Your task to perform on an android device: Check the news Image 0: 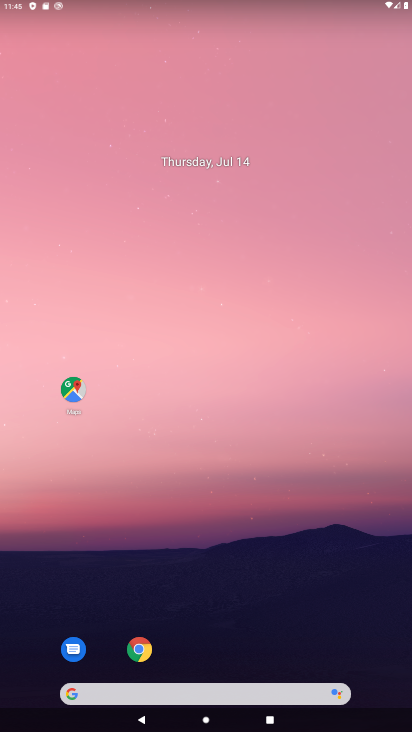
Step 0: drag from (221, 637) to (262, 188)
Your task to perform on an android device: Check the news Image 1: 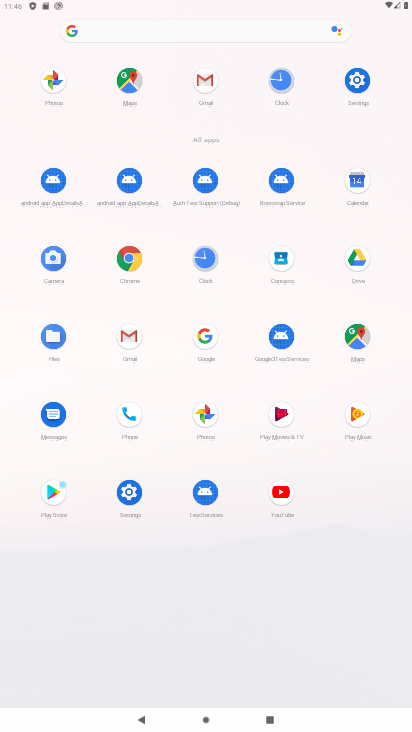
Step 1: click (129, 254)
Your task to perform on an android device: Check the news Image 2: 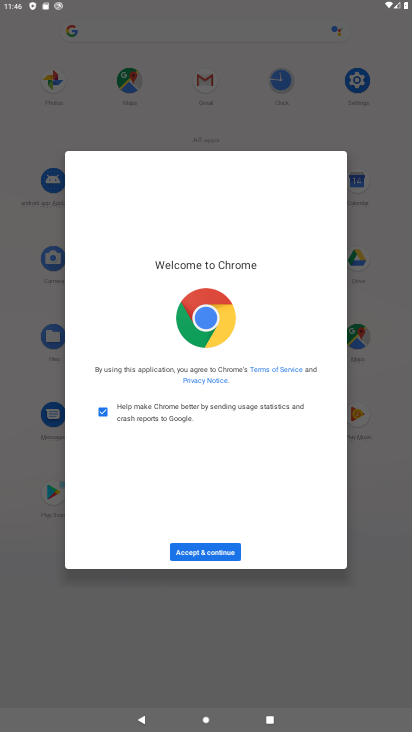
Step 2: click (214, 560)
Your task to perform on an android device: Check the news Image 3: 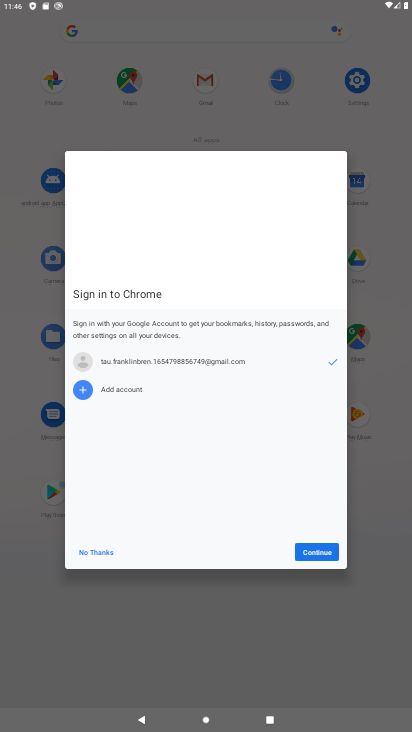
Step 3: click (313, 551)
Your task to perform on an android device: Check the news Image 4: 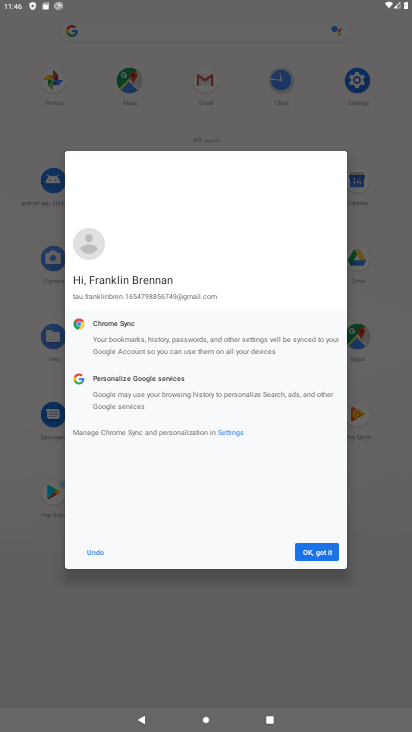
Step 4: click (313, 551)
Your task to perform on an android device: Check the news Image 5: 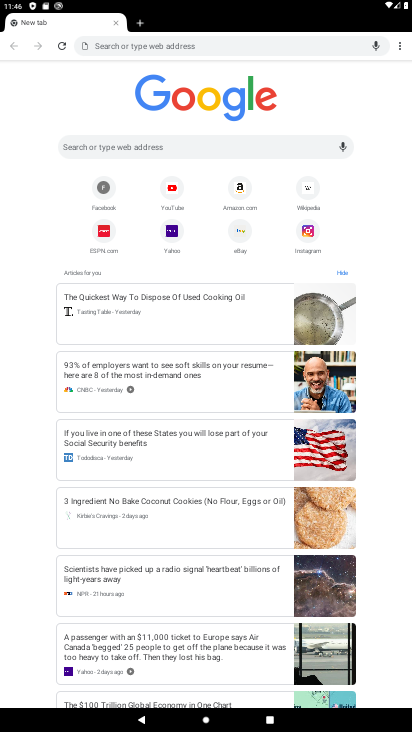
Step 5: click (187, 142)
Your task to perform on an android device: Check the news Image 6: 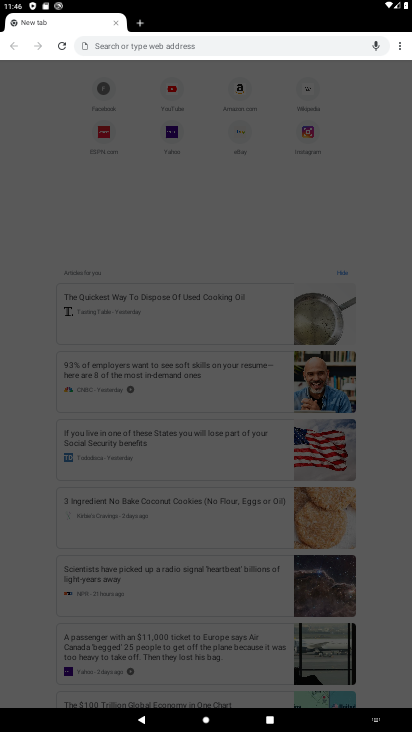
Step 6: type "Check the news "
Your task to perform on an android device: Check the news Image 7: 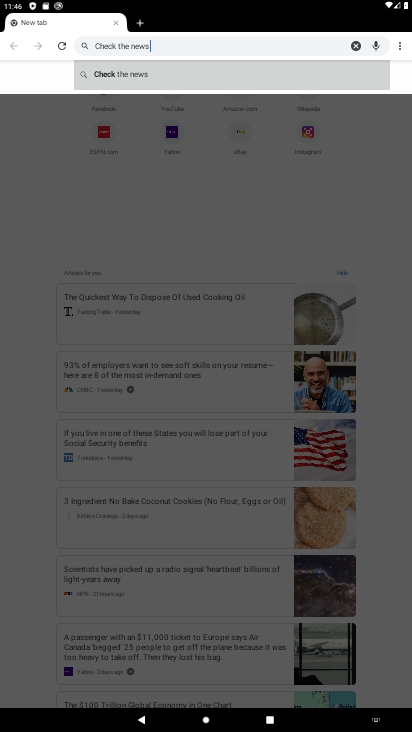
Step 7: click (185, 75)
Your task to perform on an android device: Check the news Image 8: 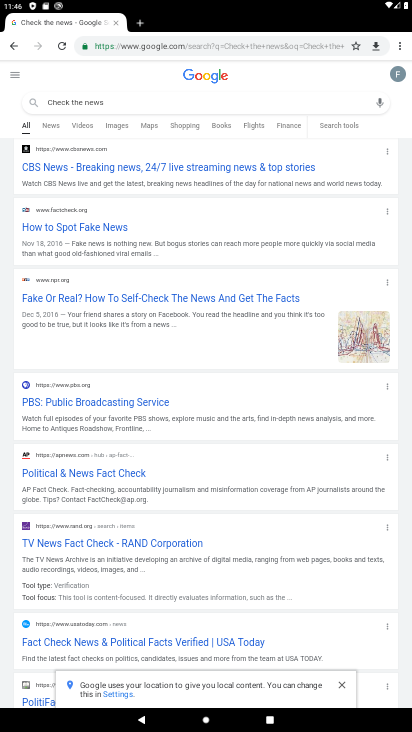
Step 8: task complete